Your task to perform on an android device: Open Youtube and go to "Your channel" Image 0: 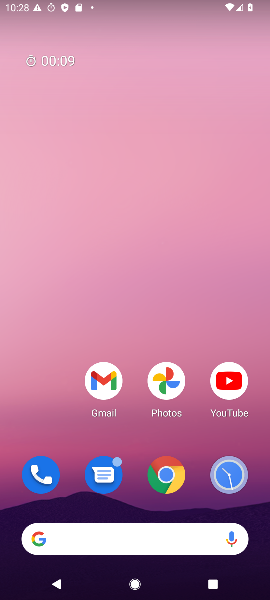
Step 0: drag from (117, 506) to (146, 78)
Your task to perform on an android device: Open Youtube and go to "Your channel" Image 1: 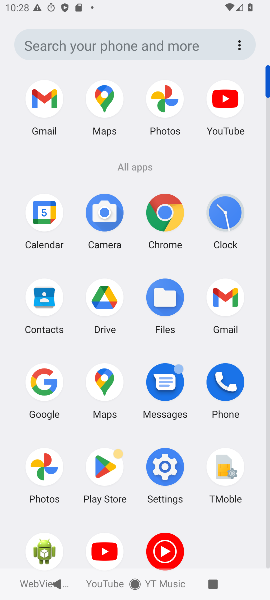
Step 1: click (105, 553)
Your task to perform on an android device: Open Youtube and go to "Your channel" Image 2: 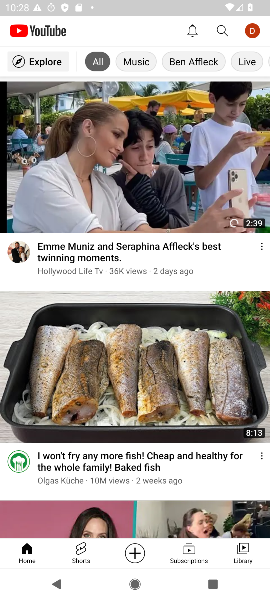
Step 2: click (257, 29)
Your task to perform on an android device: Open Youtube and go to "Your channel" Image 3: 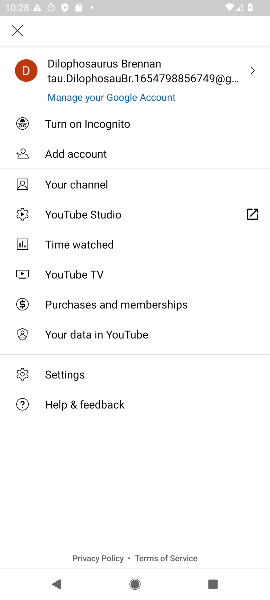
Step 3: click (82, 180)
Your task to perform on an android device: Open Youtube and go to "Your channel" Image 4: 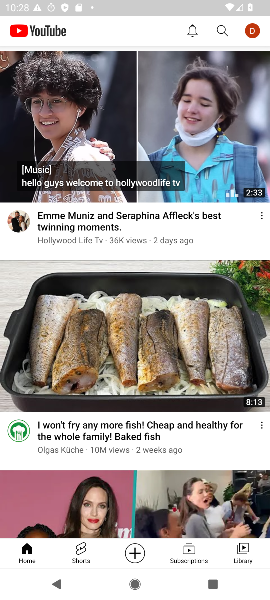
Step 4: click (252, 30)
Your task to perform on an android device: Open Youtube and go to "Your channel" Image 5: 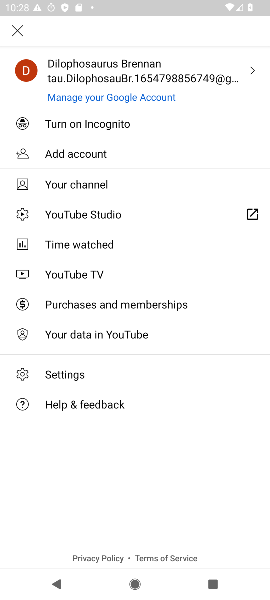
Step 5: click (87, 186)
Your task to perform on an android device: Open Youtube and go to "Your channel" Image 6: 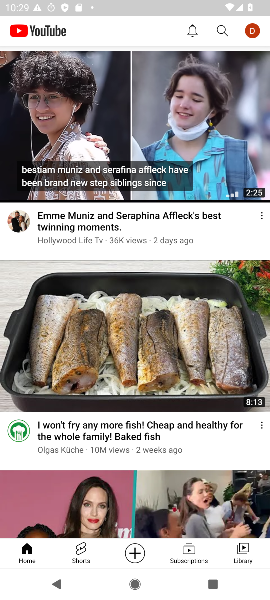
Step 6: task complete